Your task to perform on an android device: check google app version Image 0: 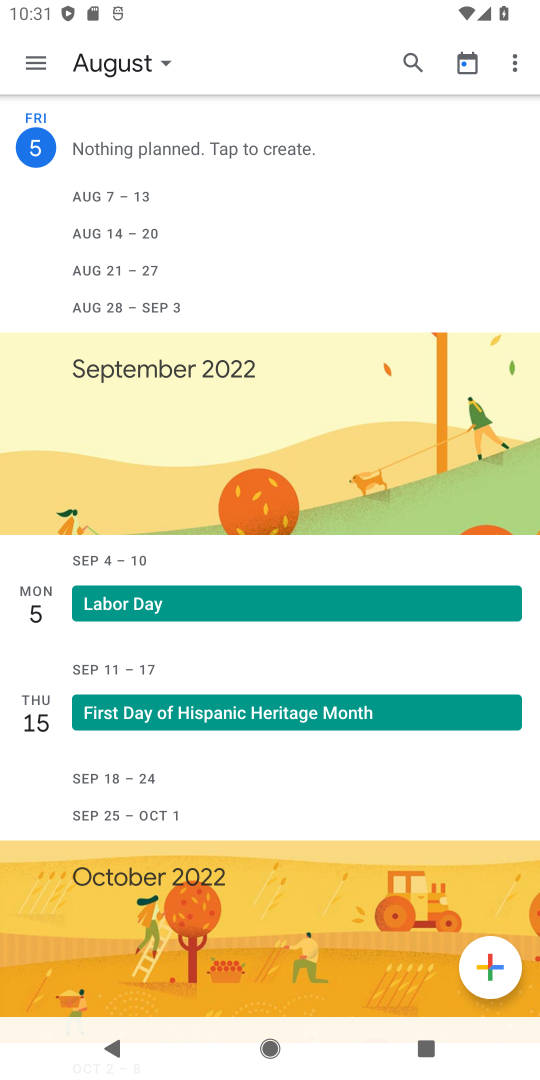
Step 0: press home button
Your task to perform on an android device: check google app version Image 1: 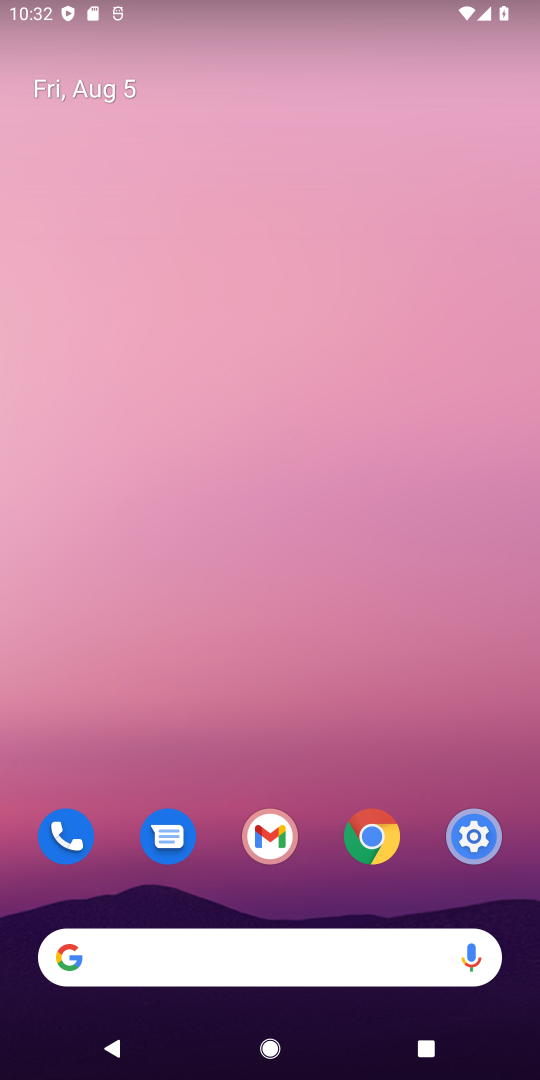
Step 1: drag from (318, 758) to (326, 80)
Your task to perform on an android device: check google app version Image 2: 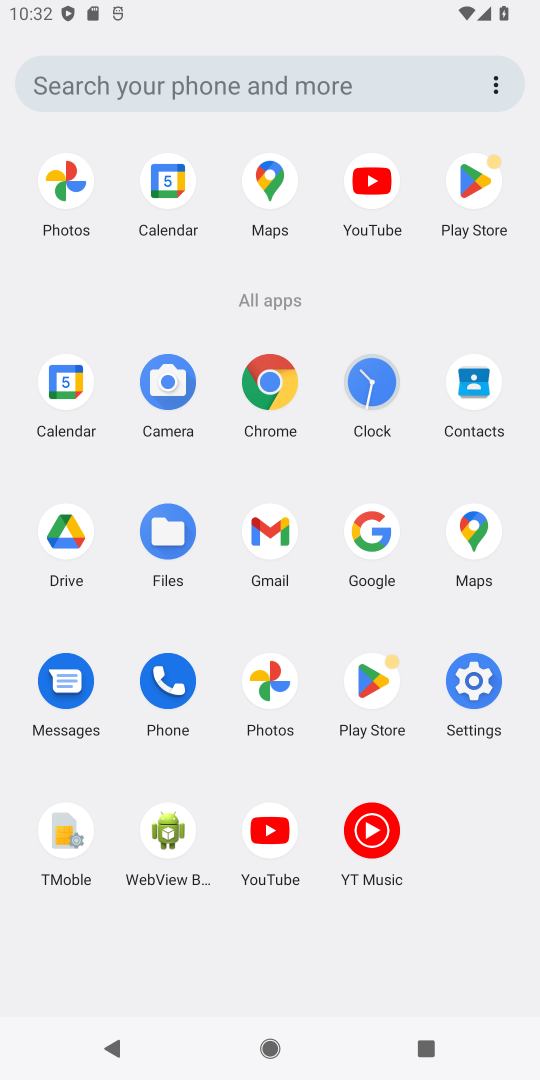
Step 2: click (372, 546)
Your task to perform on an android device: check google app version Image 3: 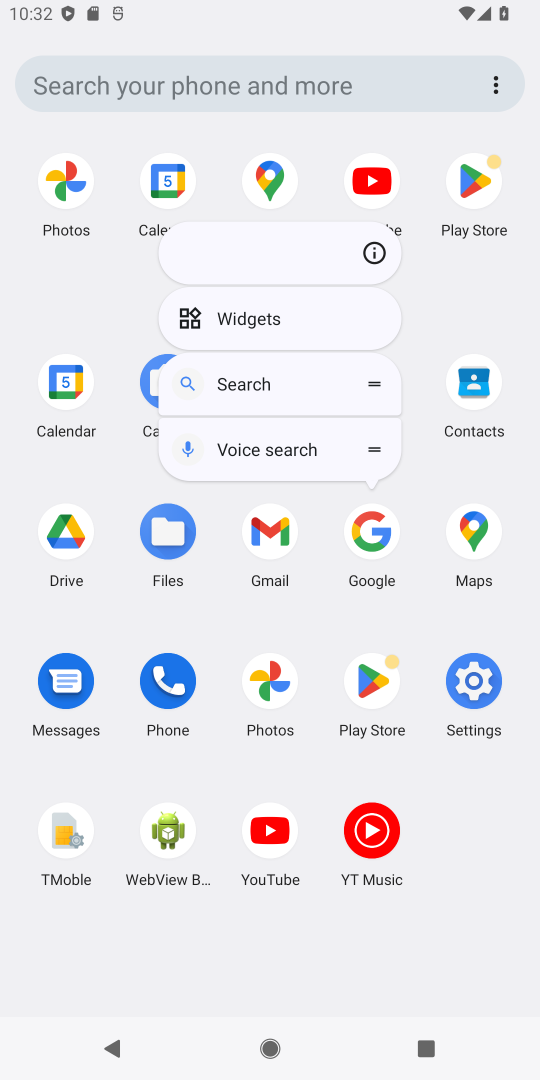
Step 3: click (368, 254)
Your task to perform on an android device: check google app version Image 4: 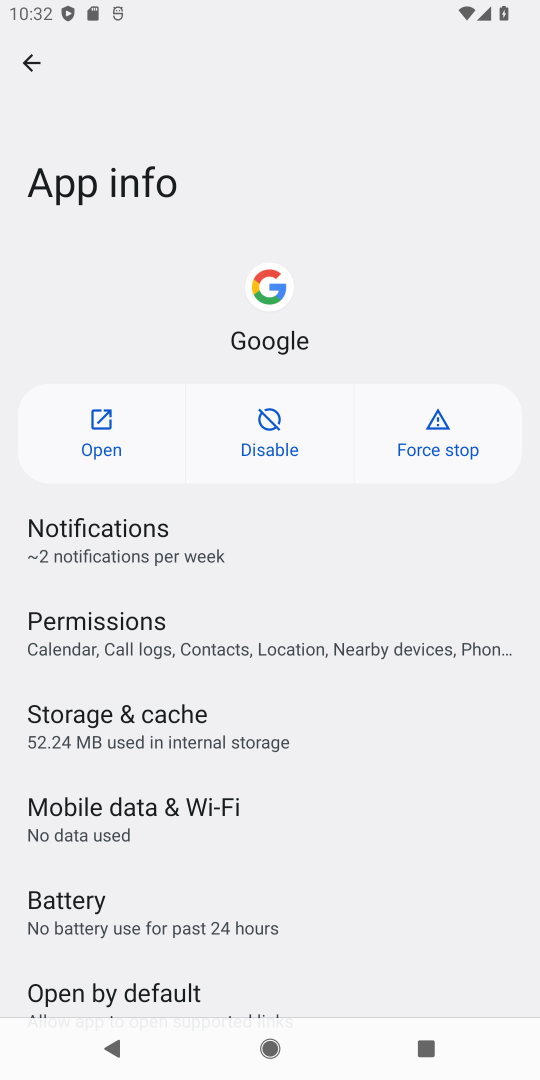
Step 4: drag from (296, 832) to (383, 198)
Your task to perform on an android device: check google app version Image 5: 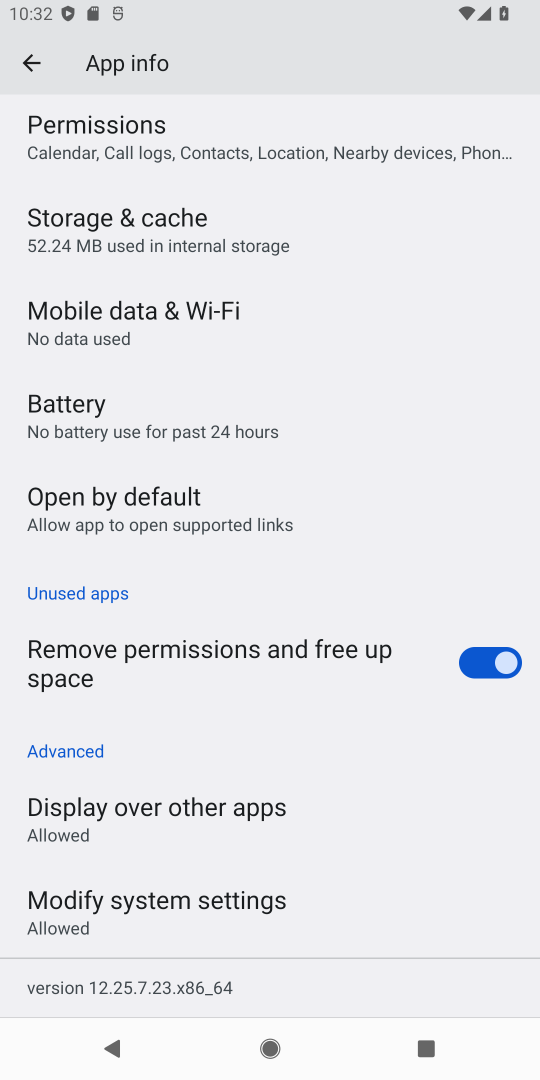
Step 5: click (174, 1004)
Your task to perform on an android device: check google app version Image 6: 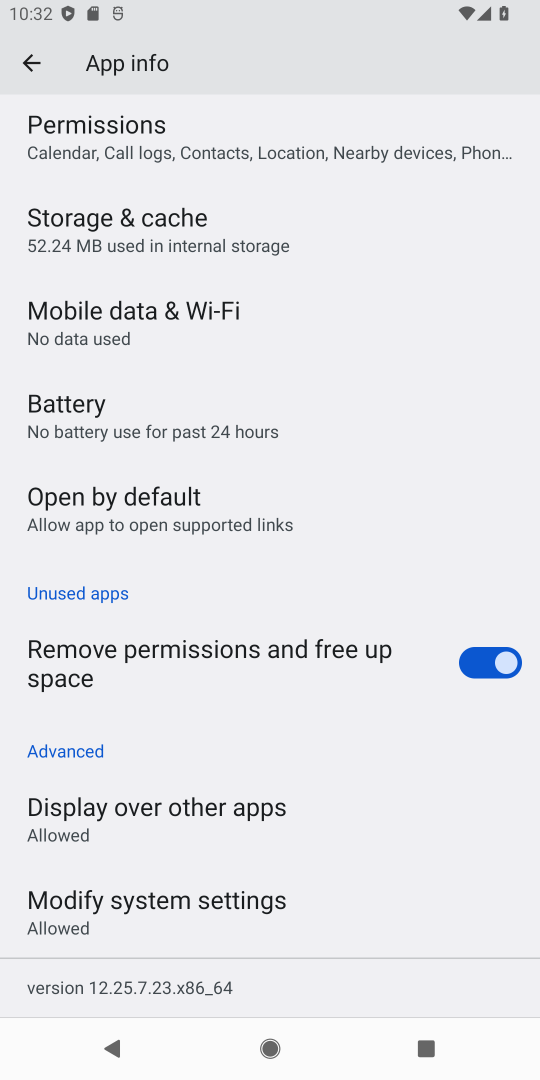
Step 6: click (179, 988)
Your task to perform on an android device: check google app version Image 7: 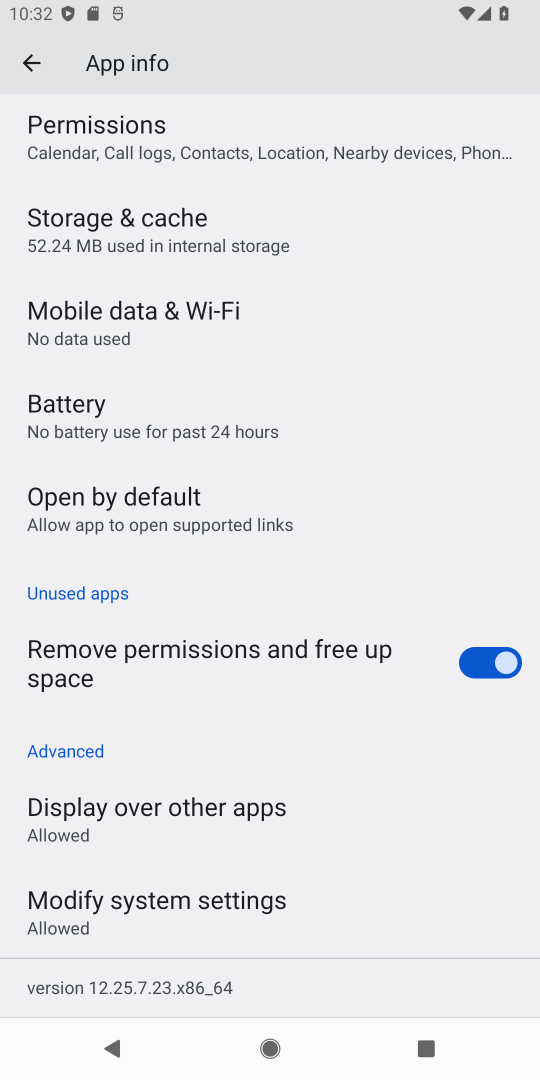
Step 7: task complete